Your task to perform on an android device: turn notification dots off Image 0: 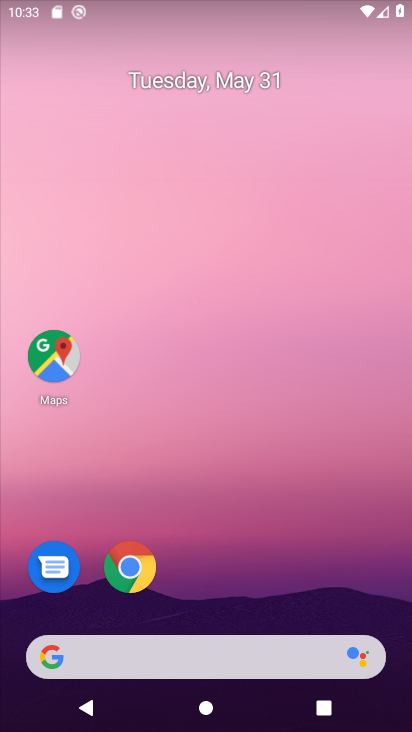
Step 0: drag from (250, 563) to (249, 236)
Your task to perform on an android device: turn notification dots off Image 1: 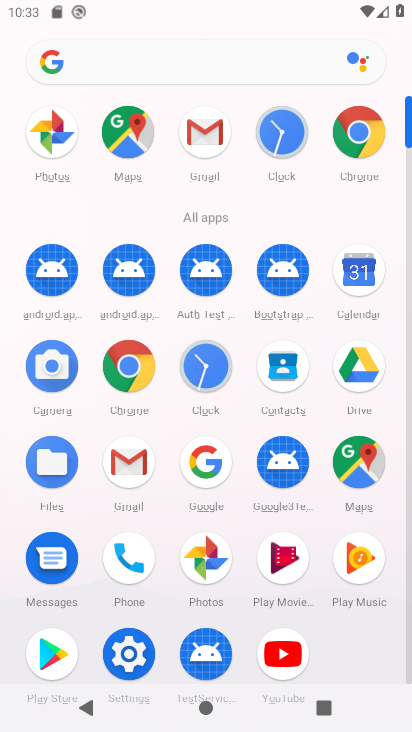
Step 1: click (136, 643)
Your task to perform on an android device: turn notification dots off Image 2: 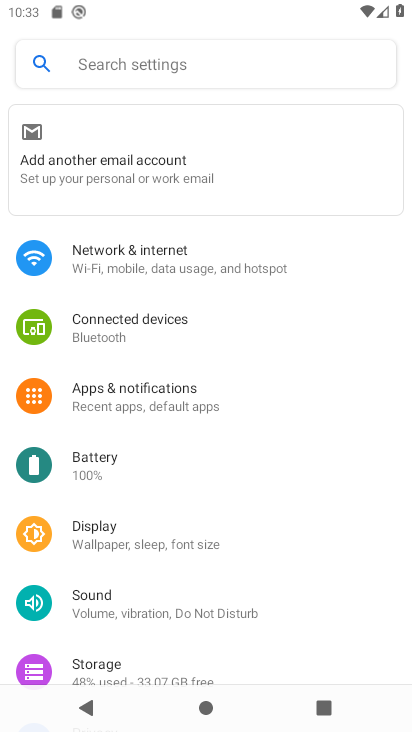
Step 2: click (146, 404)
Your task to perform on an android device: turn notification dots off Image 3: 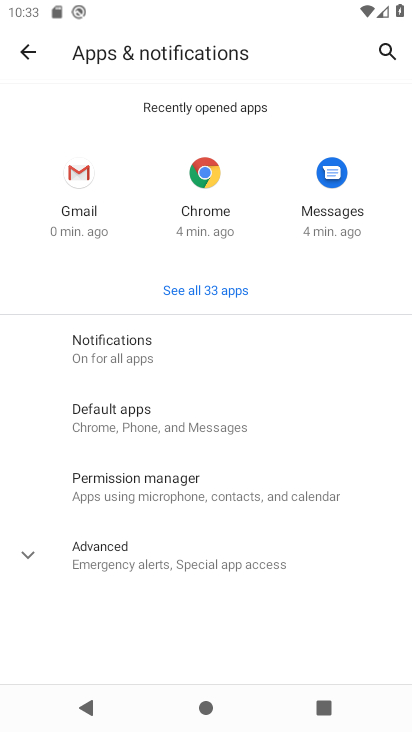
Step 3: click (143, 381)
Your task to perform on an android device: turn notification dots off Image 4: 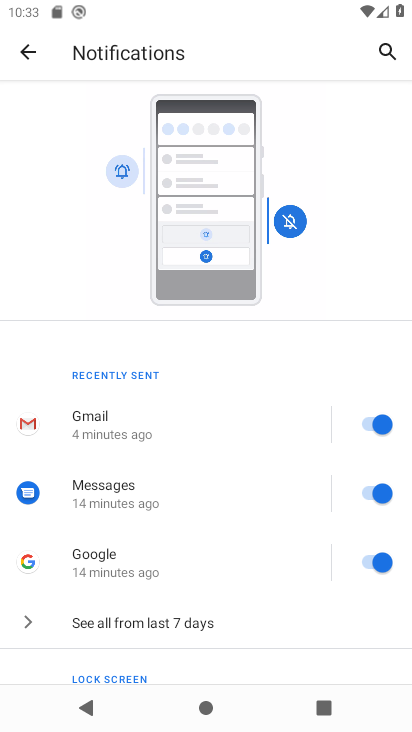
Step 4: drag from (156, 566) to (165, 259)
Your task to perform on an android device: turn notification dots off Image 5: 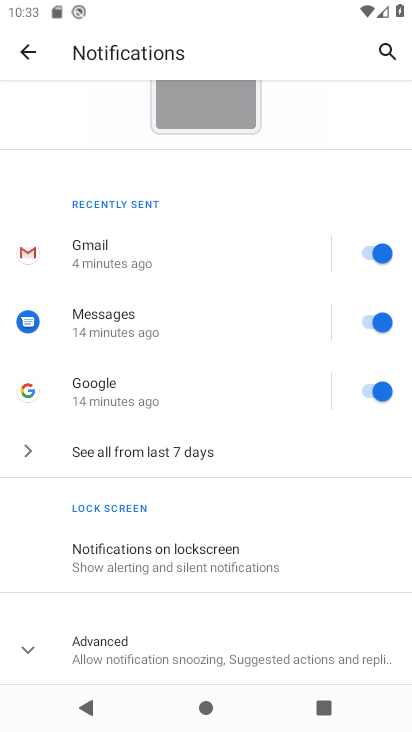
Step 5: click (193, 653)
Your task to perform on an android device: turn notification dots off Image 6: 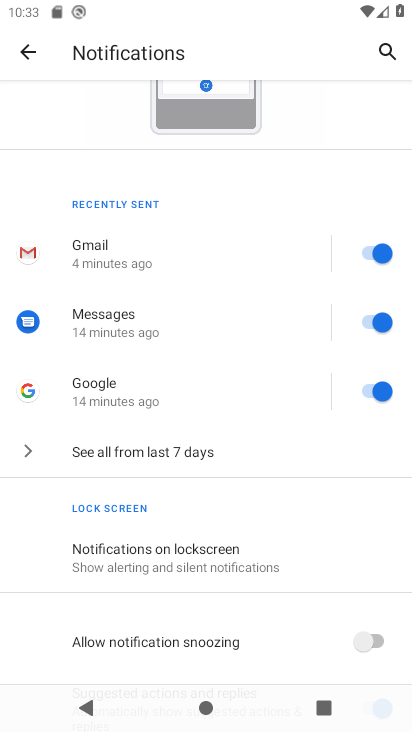
Step 6: drag from (188, 657) to (243, 174)
Your task to perform on an android device: turn notification dots off Image 7: 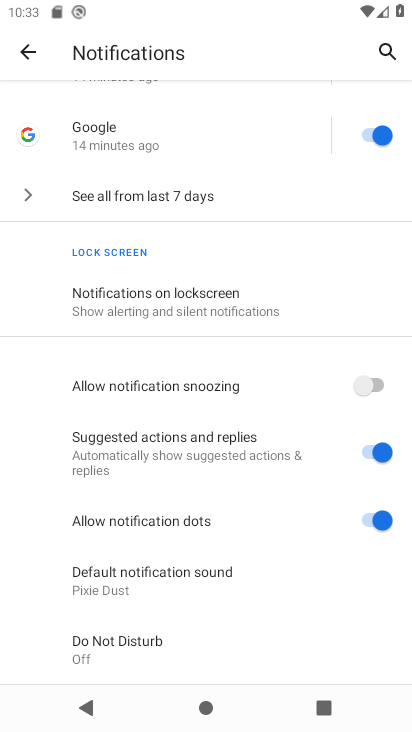
Step 7: click (379, 523)
Your task to perform on an android device: turn notification dots off Image 8: 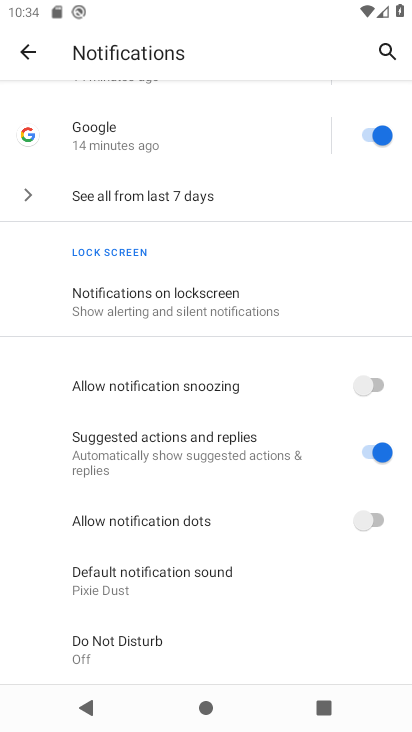
Step 8: task complete